Your task to perform on an android device: choose inbox layout in the gmail app Image 0: 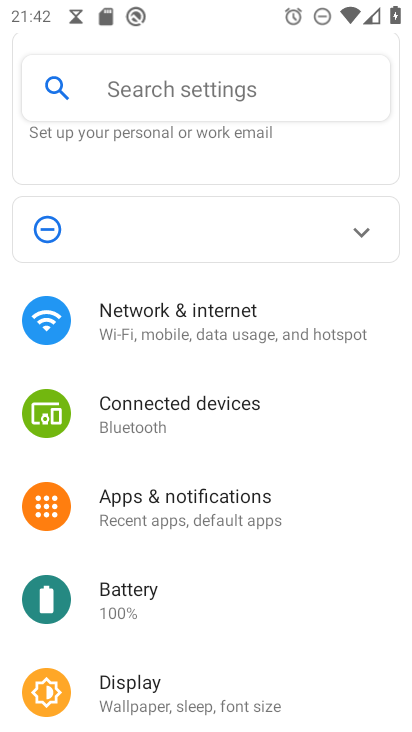
Step 0: press home button
Your task to perform on an android device: choose inbox layout in the gmail app Image 1: 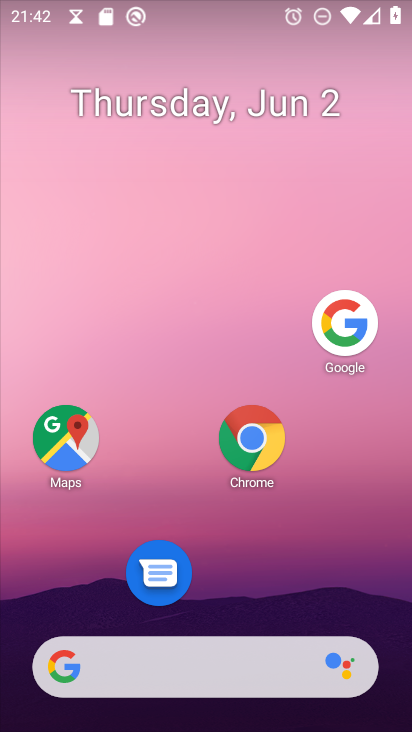
Step 1: drag from (185, 680) to (301, 125)
Your task to perform on an android device: choose inbox layout in the gmail app Image 2: 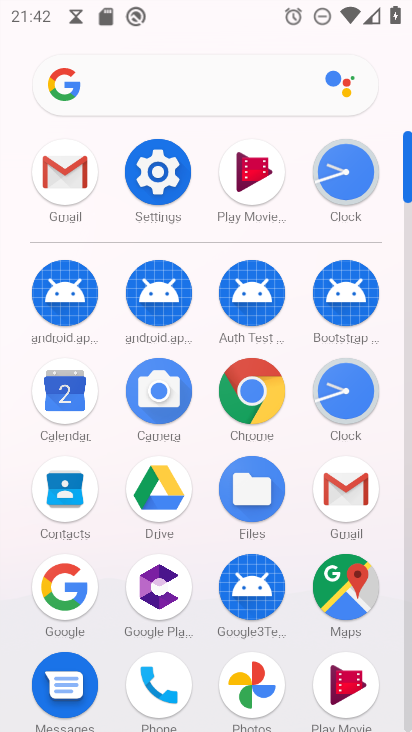
Step 2: click (62, 188)
Your task to perform on an android device: choose inbox layout in the gmail app Image 3: 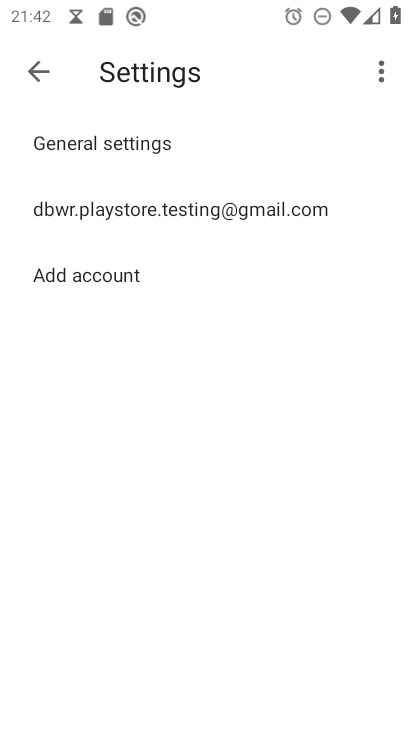
Step 3: click (163, 215)
Your task to perform on an android device: choose inbox layout in the gmail app Image 4: 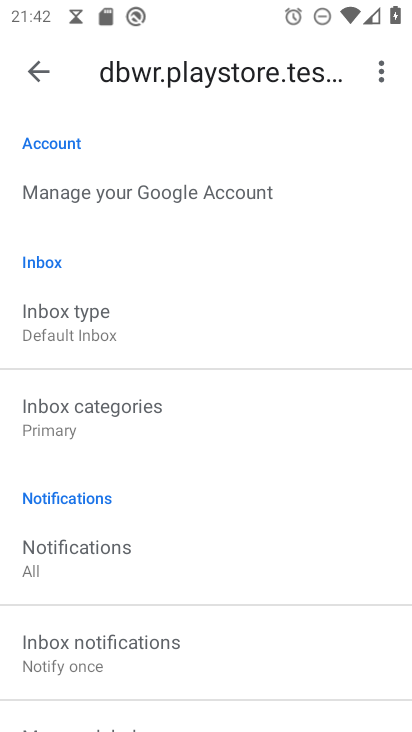
Step 4: click (75, 316)
Your task to perform on an android device: choose inbox layout in the gmail app Image 5: 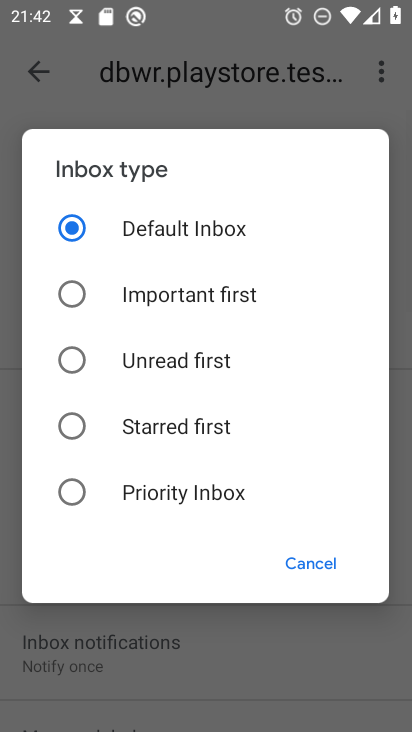
Step 5: click (69, 356)
Your task to perform on an android device: choose inbox layout in the gmail app Image 6: 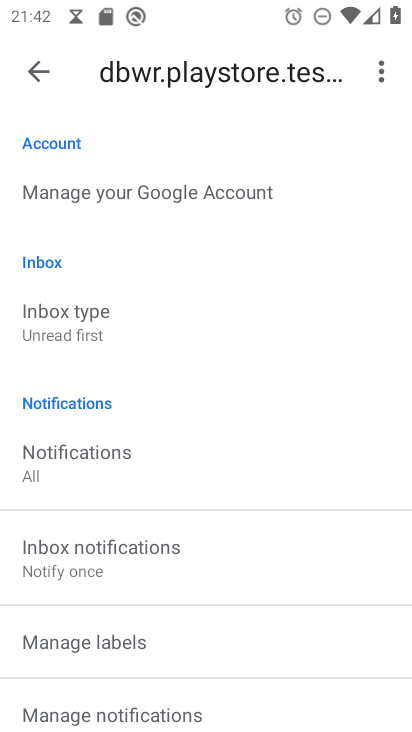
Step 6: task complete